Your task to perform on an android device: Search for Mexican restaurants on Maps Image 0: 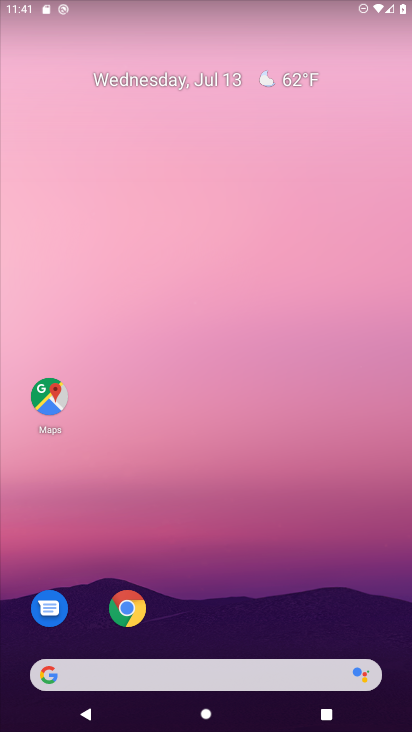
Step 0: drag from (246, 726) to (242, 212)
Your task to perform on an android device: Search for Mexican restaurants on Maps Image 1: 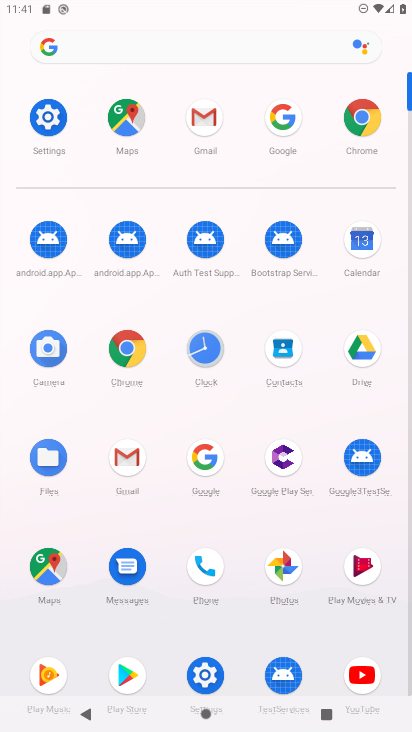
Step 1: click (55, 563)
Your task to perform on an android device: Search for Mexican restaurants on Maps Image 2: 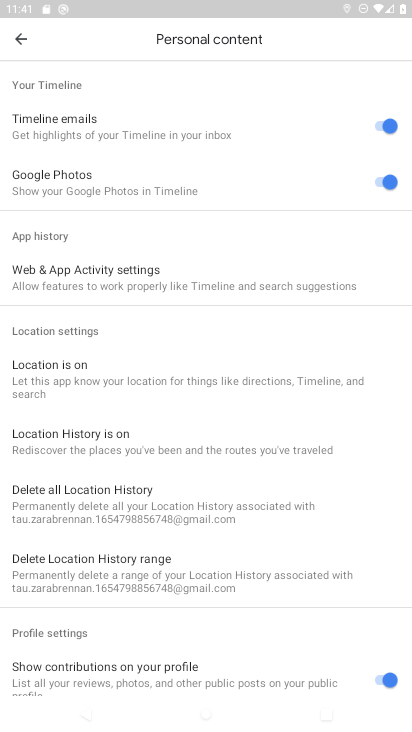
Step 2: click (18, 36)
Your task to perform on an android device: Search for Mexican restaurants on Maps Image 3: 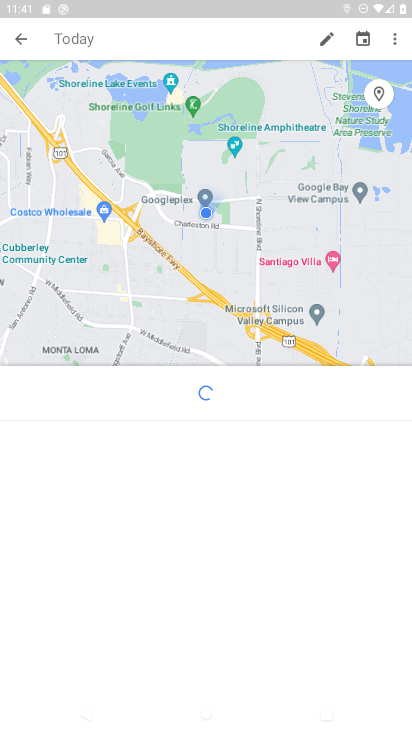
Step 3: click (25, 37)
Your task to perform on an android device: Search for Mexican restaurants on Maps Image 4: 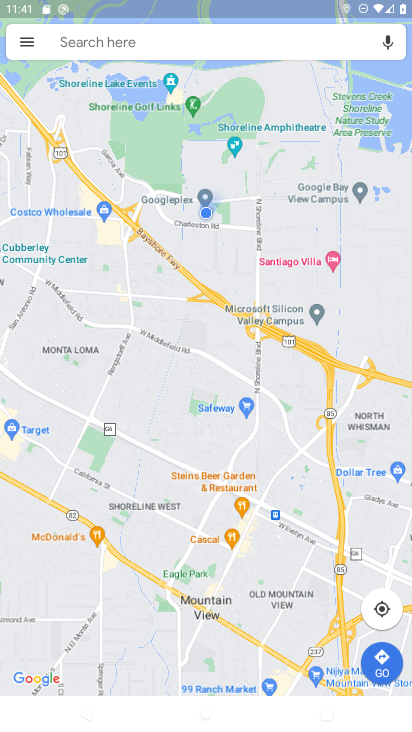
Step 4: click (209, 43)
Your task to perform on an android device: Search for Mexican restaurants on Maps Image 5: 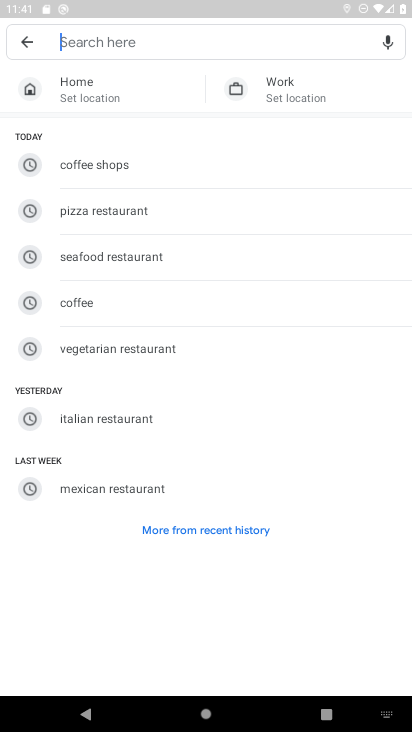
Step 5: type "Mexican restaurants"
Your task to perform on an android device: Search for Mexican restaurants on Maps Image 6: 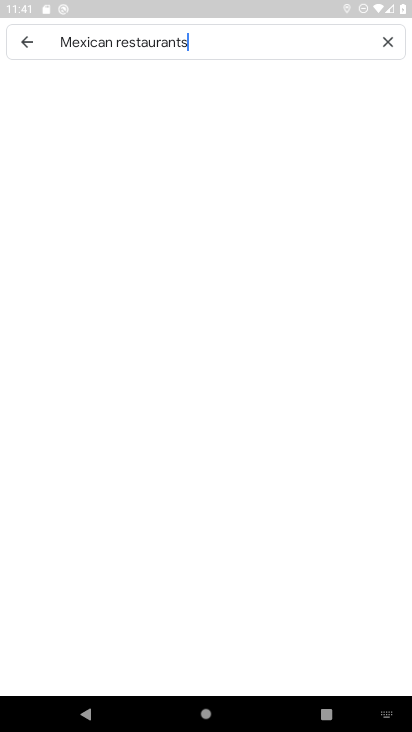
Step 6: type ""
Your task to perform on an android device: Search for Mexican restaurants on Maps Image 7: 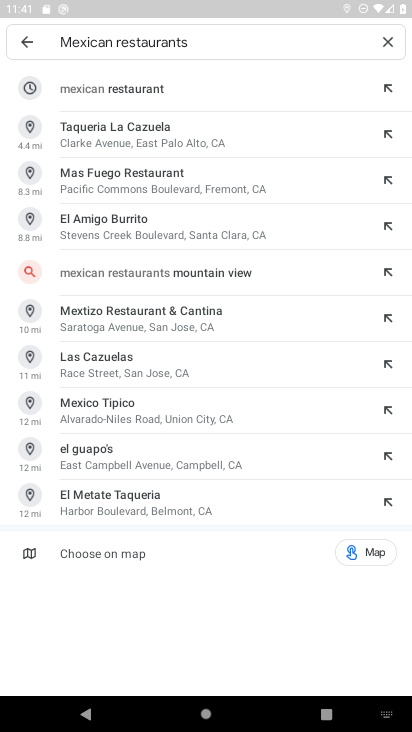
Step 7: click (135, 89)
Your task to perform on an android device: Search for Mexican restaurants on Maps Image 8: 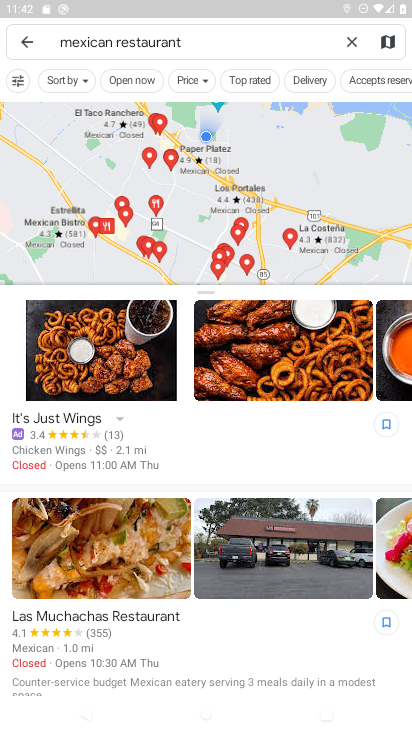
Step 8: task complete